Your task to perform on an android device: turn on bluetooth scan Image 0: 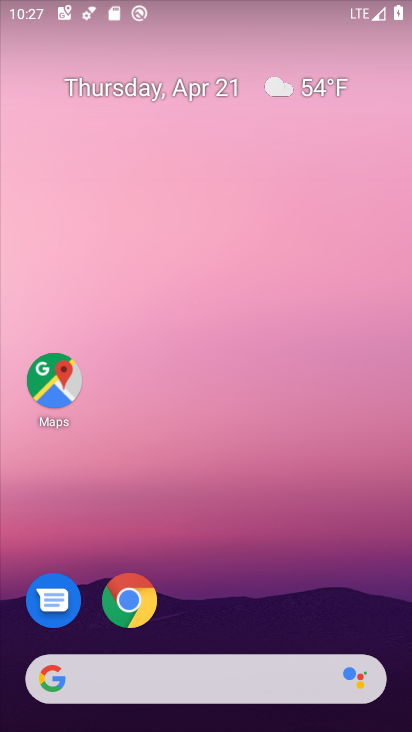
Step 0: drag from (214, 504) to (199, 36)
Your task to perform on an android device: turn on bluetooth scan Image 1: 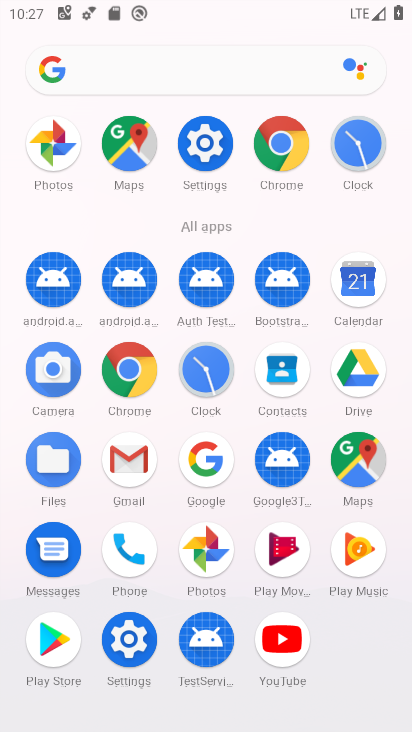
Step 1: click (216, 141)
Your task to perform on an android device: turn on bluetooth scan Image 2: 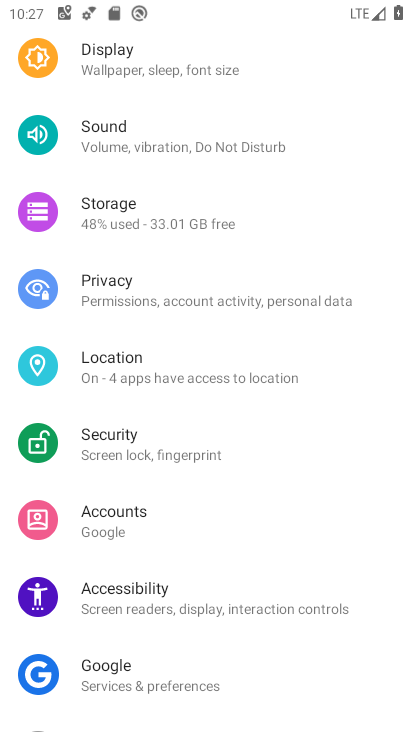
Step 2: click (177, 374)
Your task to perform on an android device: turn on bluetooth scan Image 3: 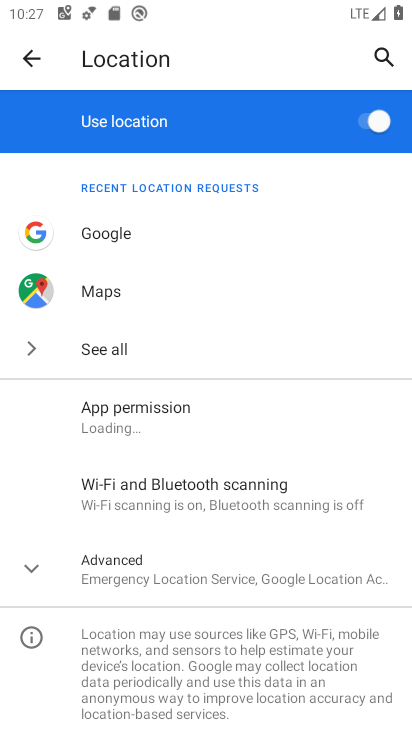
Step 3: click (226, 487)
Your task to perform on an android device: turn on bluetooth scan Image 4: 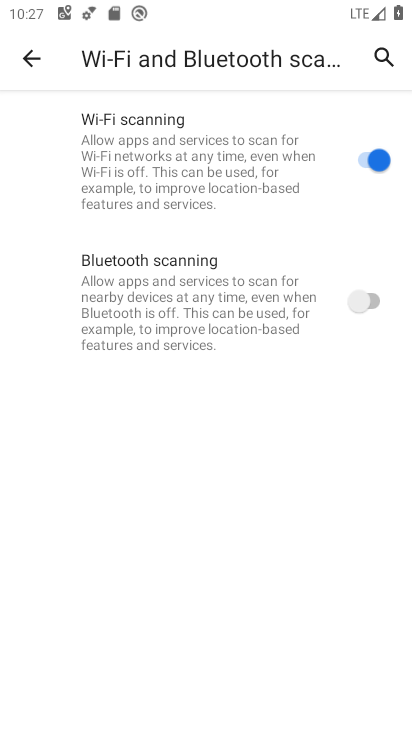
Step 4: click (357, 300)
Your task to perform on an android device: turn on bluetooth scan Image 5: 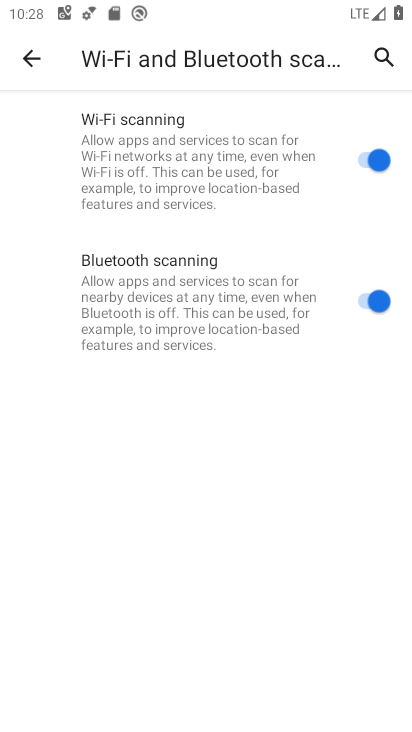
Step 5: task complete